Your task to perform on an android device: toggle javascript in the chrome app Image 0: 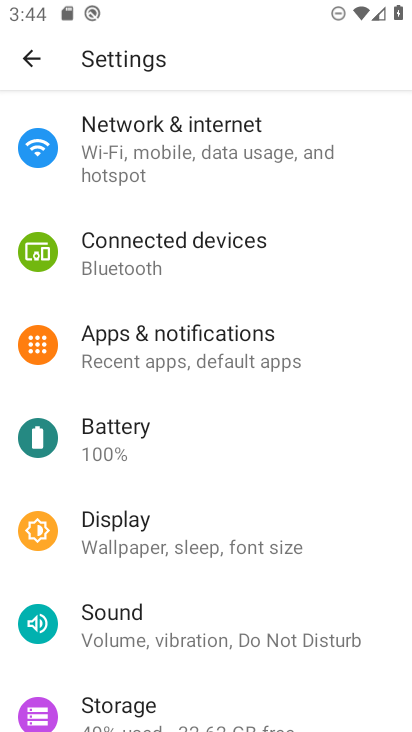
Step 0: press back button
Your task to perform on an android device: toggle javascript in the chrome app Image 1: 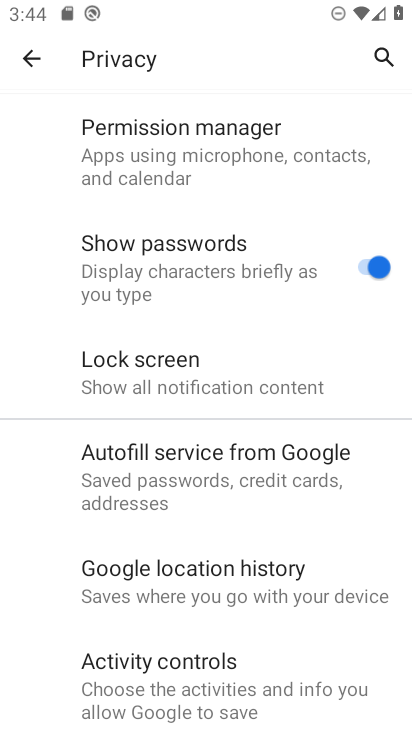
Step 1: press home button
Your task to perform on an android device: toggle javascript in the chrome app Image 2: 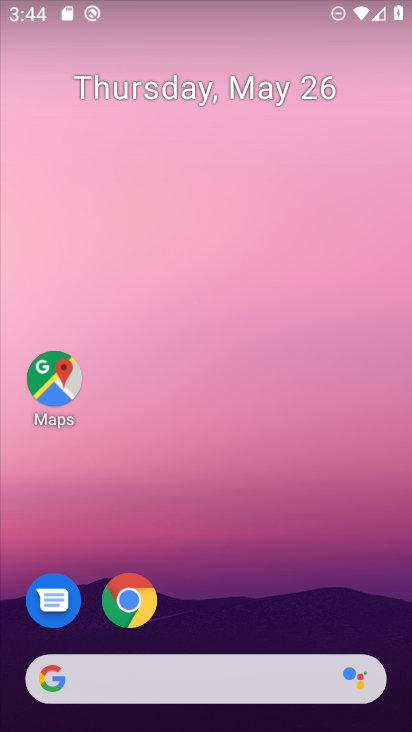
Step 2: drag from (277, 578) to (250, 8)
Your task to perform on an android device: toggle javascript in the chrome app Image 3: 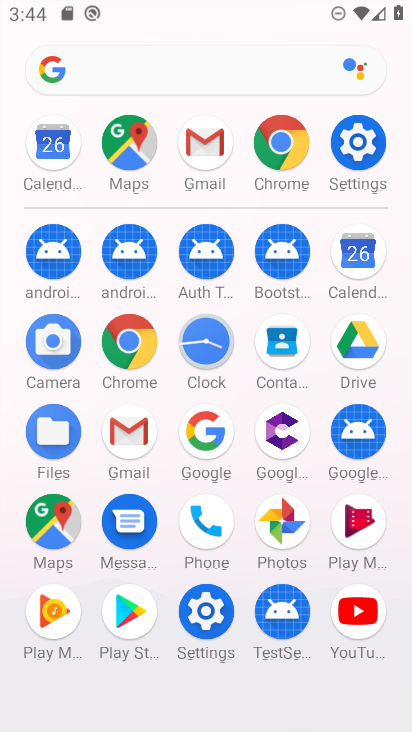
Step 3: click (129, 337)
Your task to perform on an android device: toggle javascript in the chrome app Image 4: 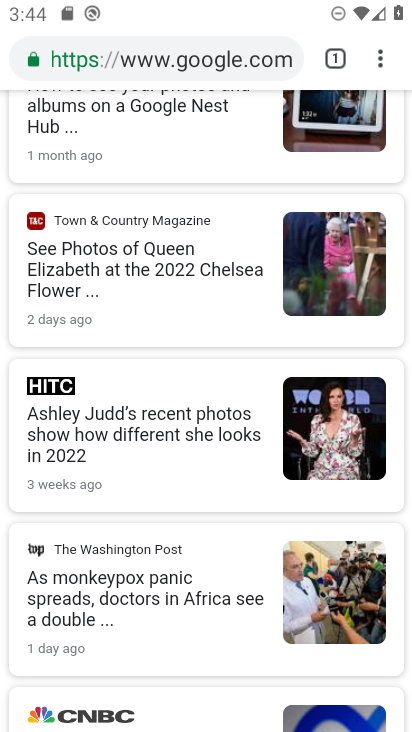
Step 4: drag from (184, 190) to (143, 624)
Your task to perform on an android device: toggle javascript in the chrome app Image 5: 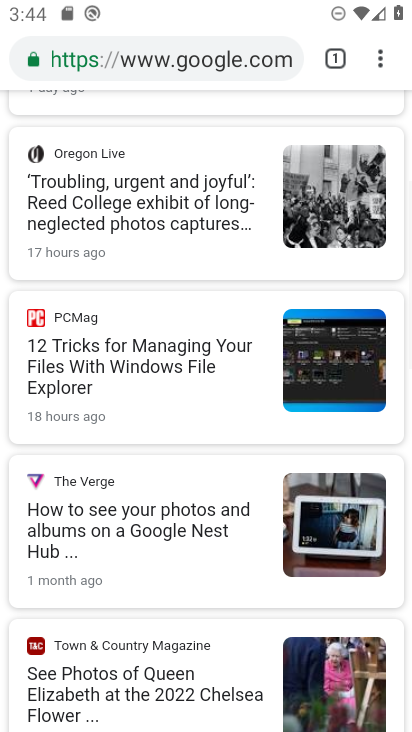
Step 5: drag from (159, 174) to (159, 600)
Your task to perform on an android device: toggle javascript in the chrome app Image 6: 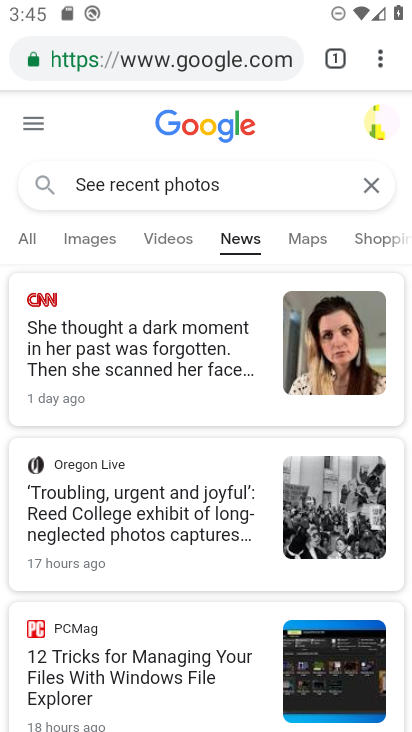
Step 6: drag from (378, 56) to (197, 626)
Your task to perform on an android device: toggle javascript in the chrome app Image 7: 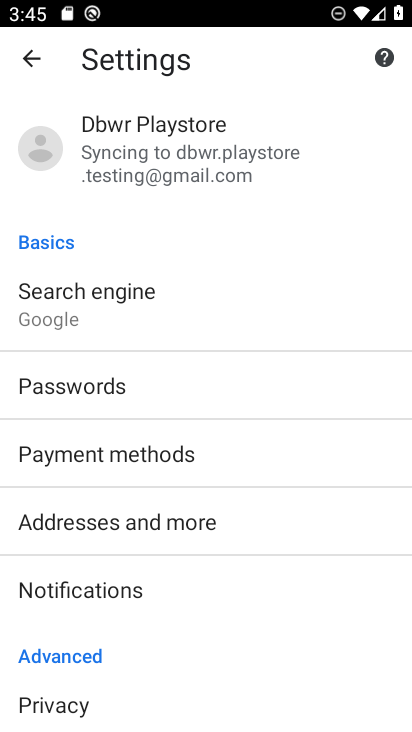
Step 7: drag from (265, 562) to (278, 191)
Your task to perform on an android device: toggle javascript in the chrome app Image 8: 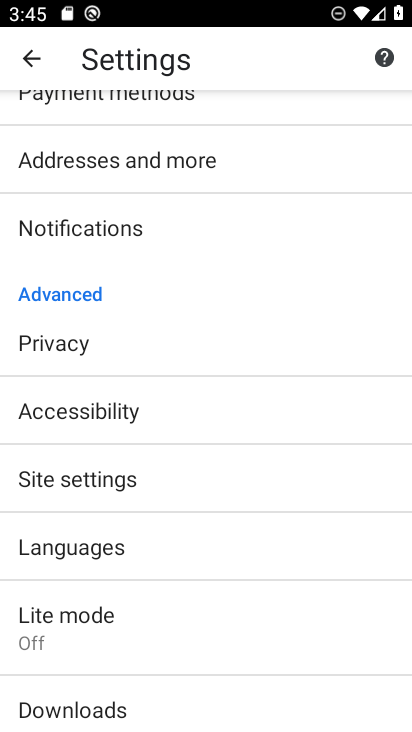
Step 8: click (111, 482)
Your task to perform on an android device: toggle javascript in the chrome app Image 9: 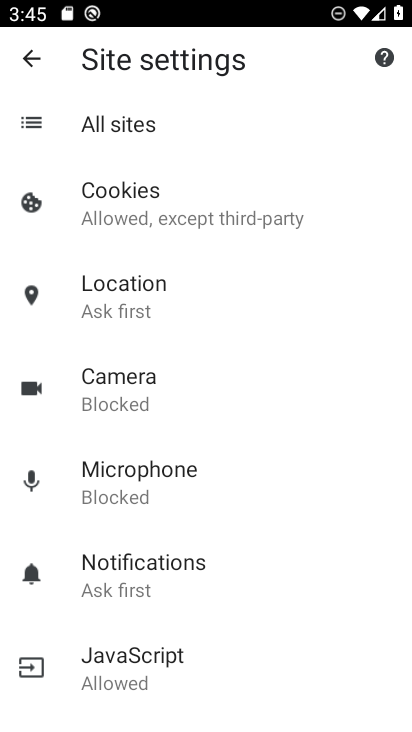
Step 9: click (142, 658)
Your task to perform on an android device: toggle javascript in the chrome app Image 10: 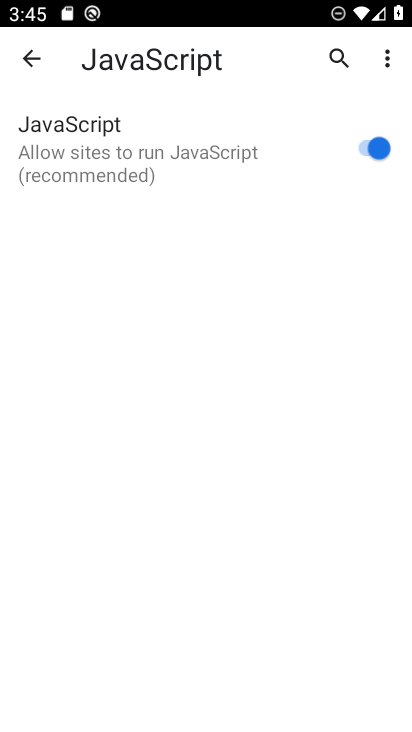
Step 10: click (373, 136)
Your task to perform on an android device: toggle javascript in the chrome app Image 11: 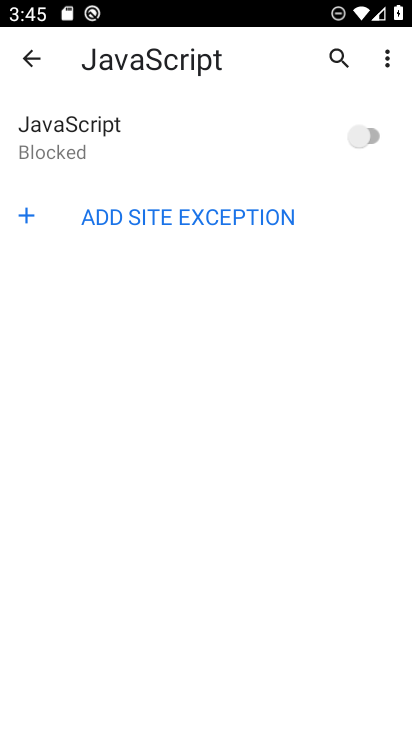
Step 11: task complete